Your task to perform on an android device: Show me recent news Image 0: 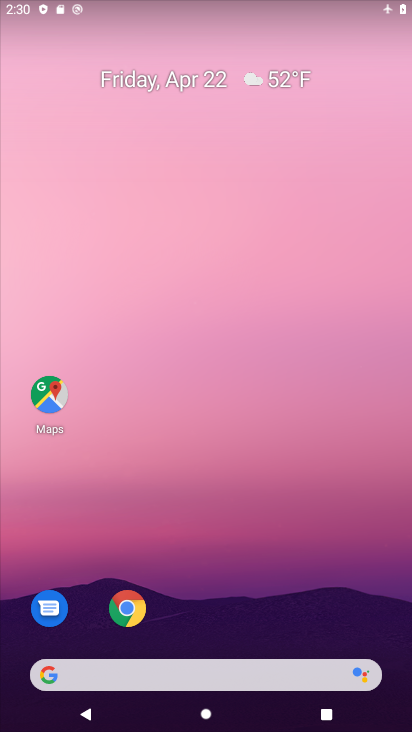
Step 0: drag from (234, 608) to (258, 142)
Your task to perform on an android device: Show me recent news Image 1: 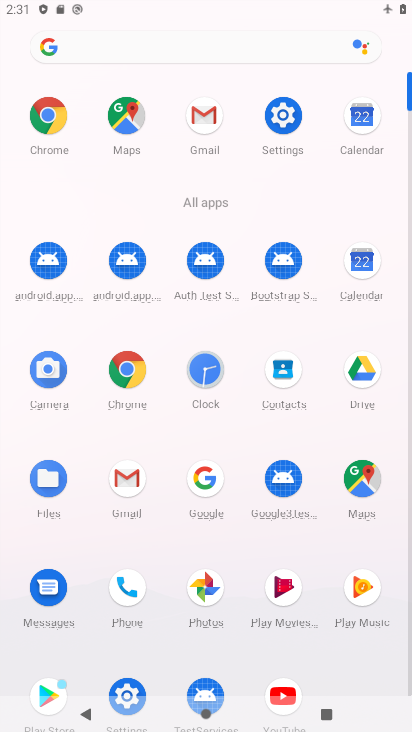
Step 1: drag from (227, 549) to (253, 354)
Your task to perform on an android device: Show me recent news Image 2: 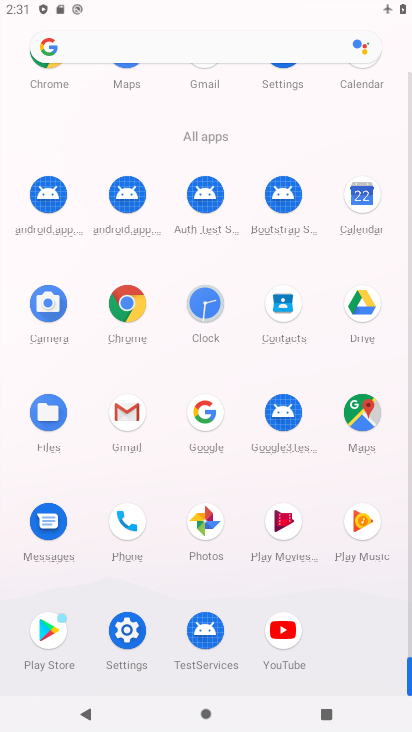
Step 2: click (208, 416)
Your task to perform on an android device: Show me recent news Image 3: 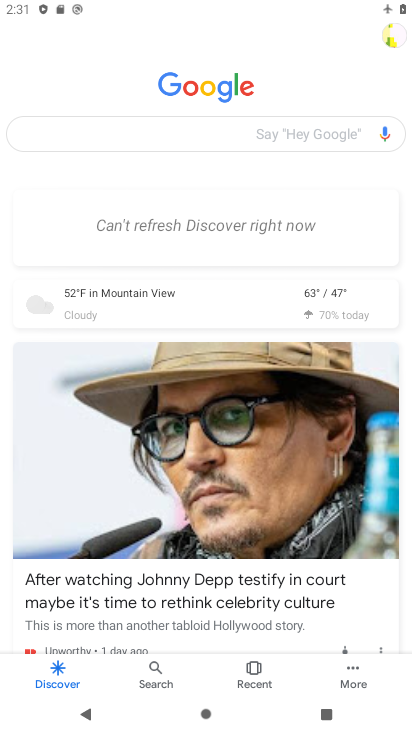
Step 3: click (213, 131)
Your task to perform on an android device: Show me recent news Image 4: 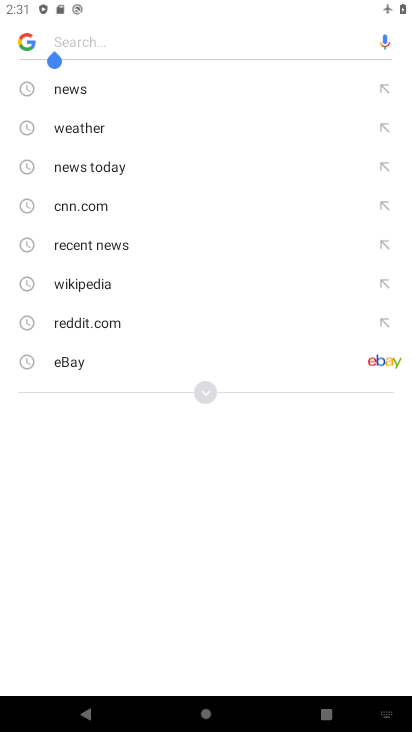
Step 4: click (92, 245)
Your task to perform on an android device: Show me recent news Image 5: 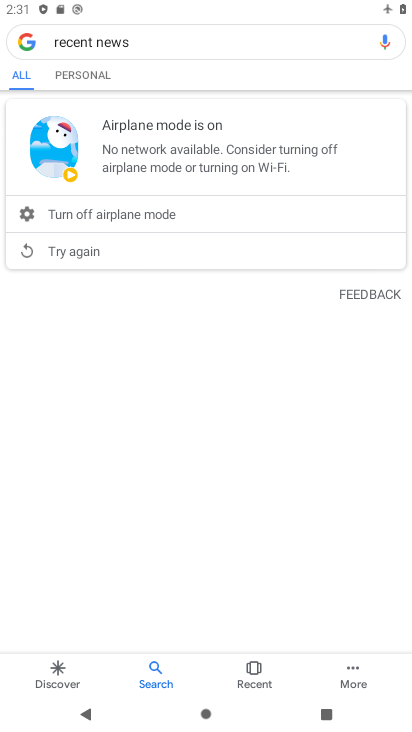
Step 5: task complete